Your task to perform on an android device: change text size in settings app Image 0: 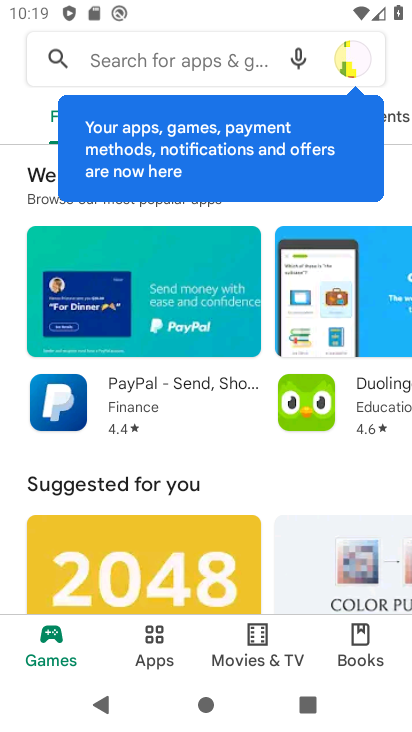
Step 0: press home button
Your task to perform on an android device: change text size in settings app Image 1: 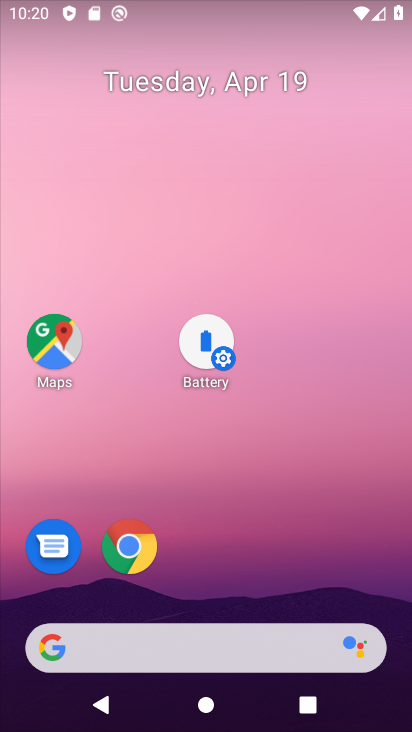
Step 1: drag from (262, 424) to (354, 1)
Your task to perform on an android device: change text size in settings app Image 2: 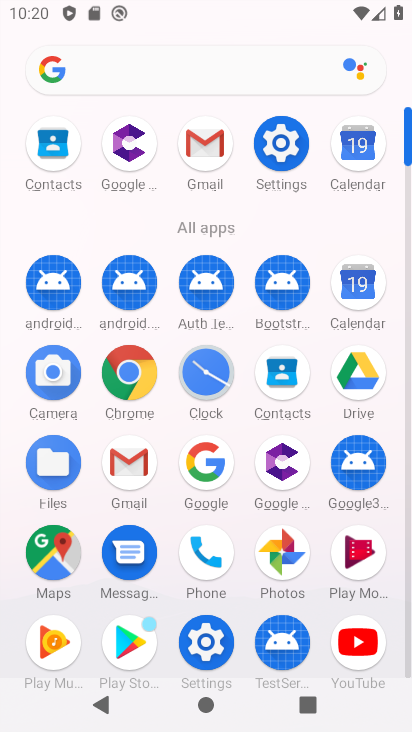
Step 2: click (287, 150)
Your task to perform on an android device: change text size in settings app Image 3: 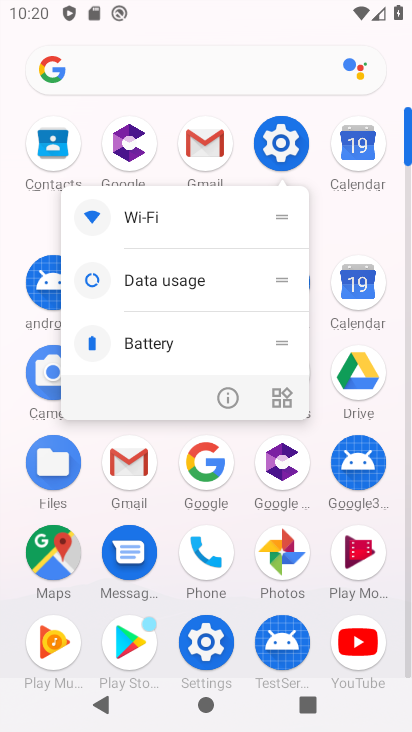
Step 3: click (286, 148)
Your task to perform on an android device: change text size in settings app Image 4: 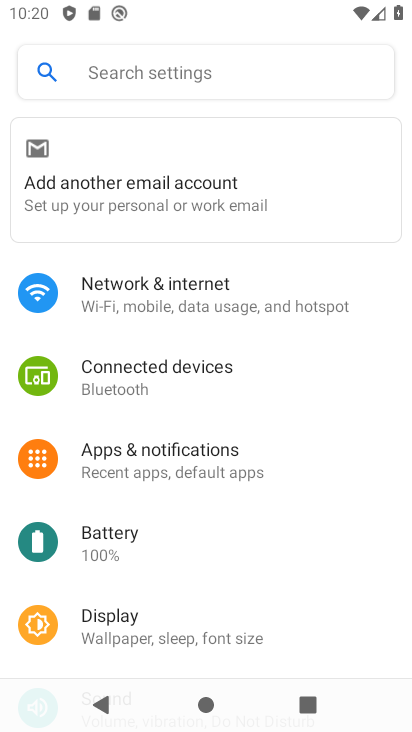
Step 4: click (164, 66)
Your task to perform on an android device: change text size in settings app Image 5: 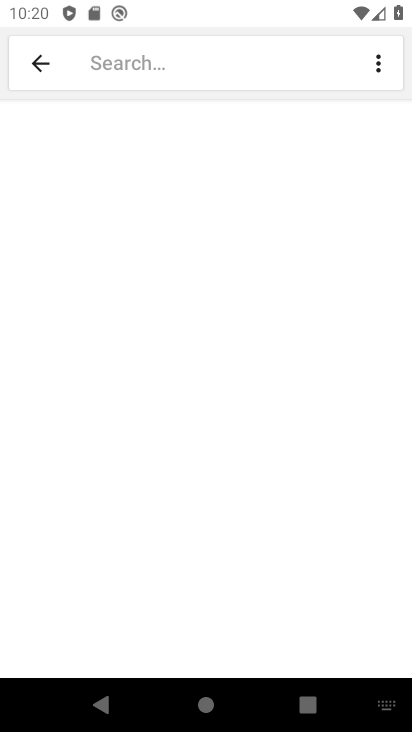
Step 5: type "text size"
Your task to perform on an android device: change text size in settings app Image 6: 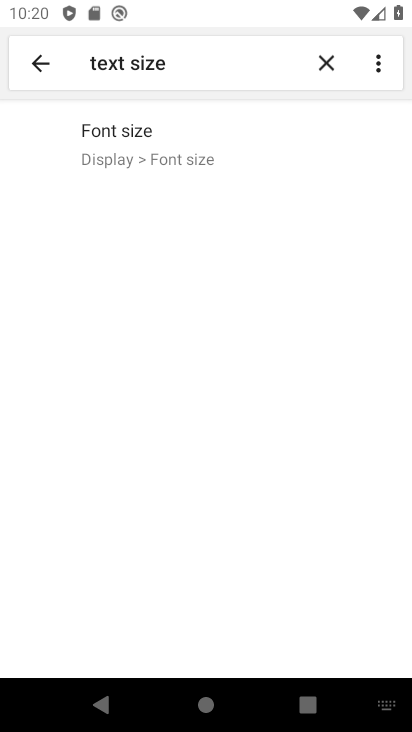
Step 6: click (188, 137)
Your task to perform on an android device: change text size in settings app Image 7: 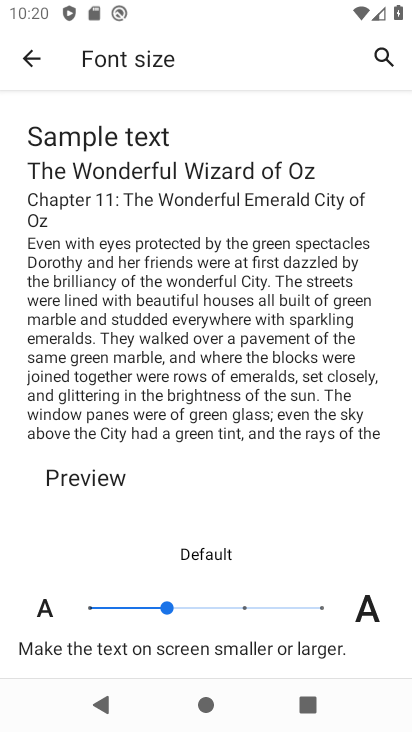
Step 7: task complete